Your task to perform on an android device: Search for usb-c on walmart, select the first entry, and add it to the cart. Image 0: 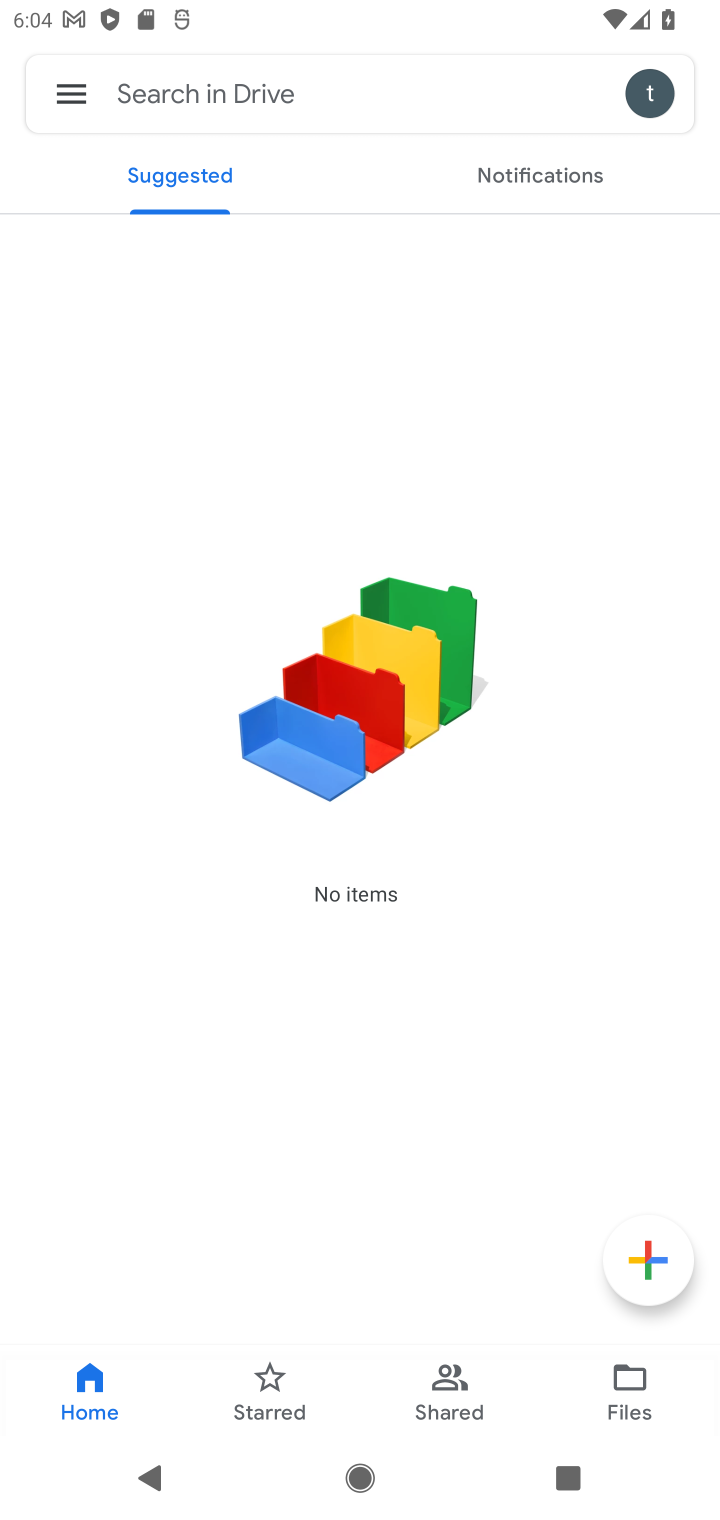
Step 0: press home button
Your task to perform on an android device: Search for usb-c on walmart, select the first entry, and add it to the cart. Image 1: 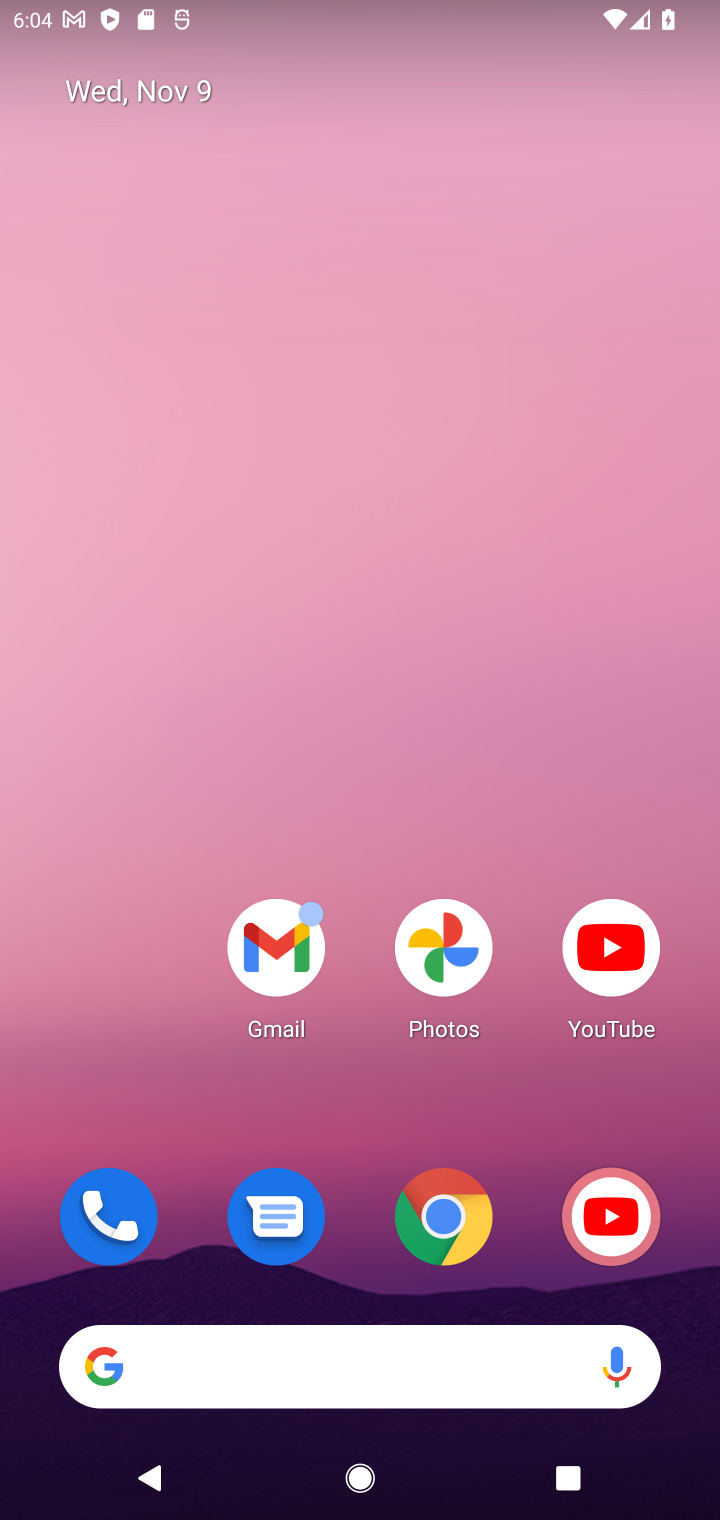
Step 1: drag from (401, 1099) to (464, 740)
Your task to perform on an android device: Search for usb-c on walmart, select the first entry, and add it to the cart. Image 2: 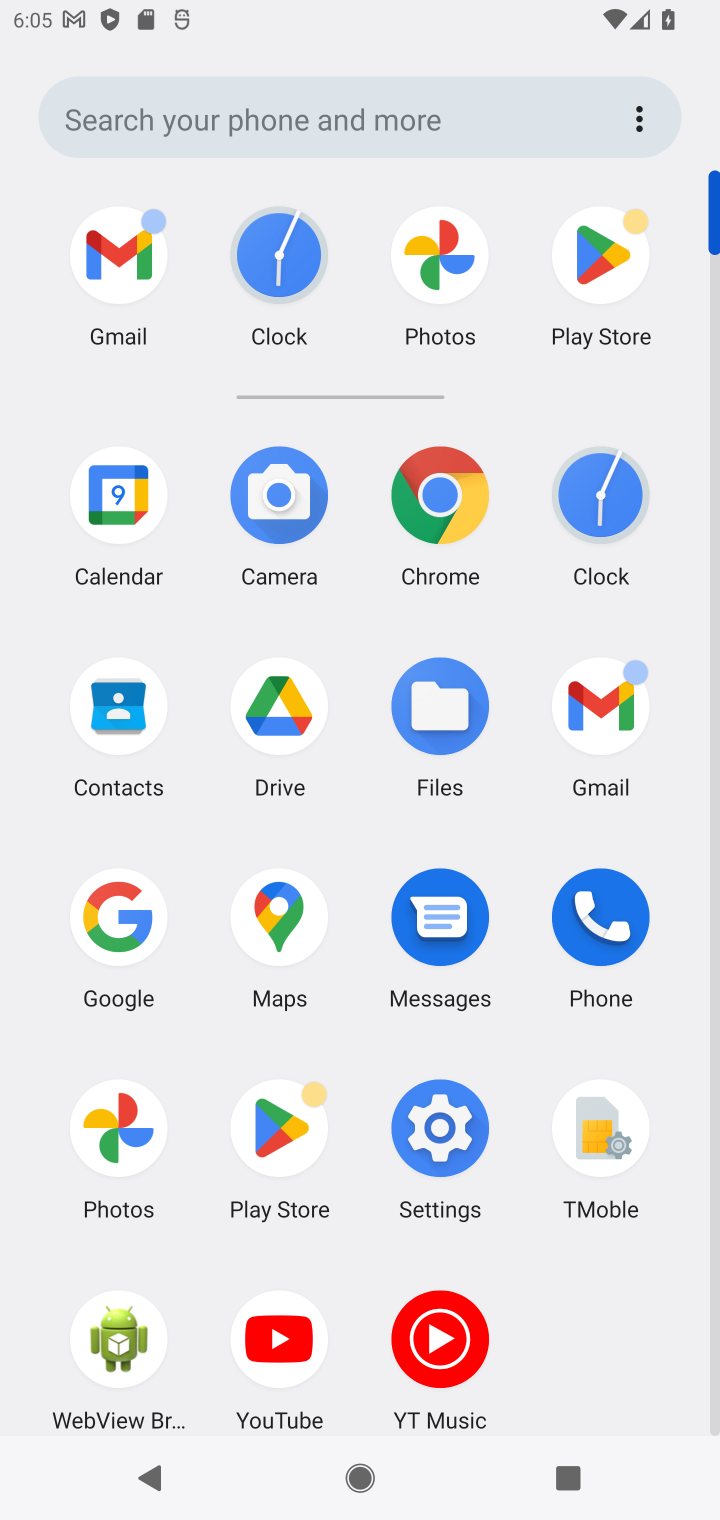
Step 2: click (444, 505)
Your task to perform on an android device: Search for usb-c on walmart, select the first entry, and add it to the cart. Image 3: 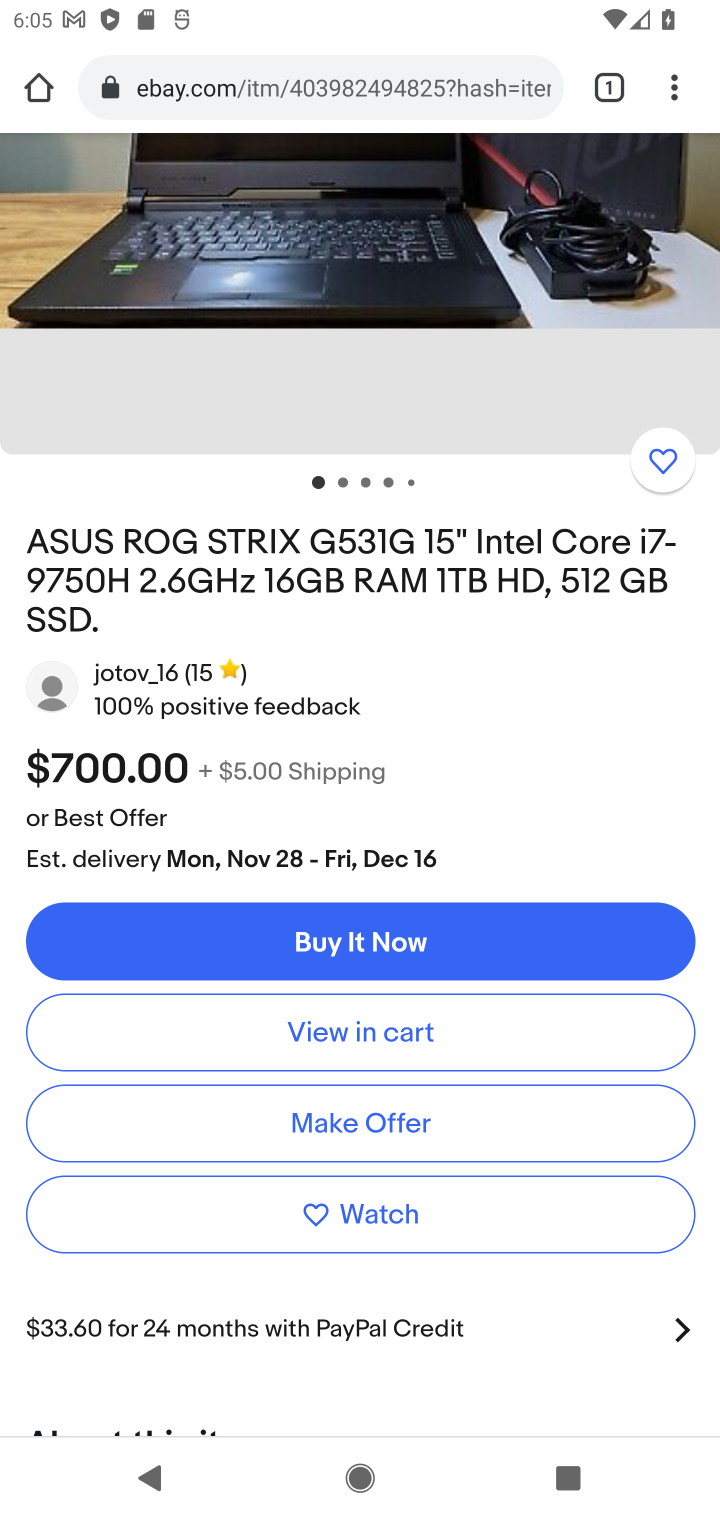
Step 3: click (383, 86)
Your task to perform on an android device: Search for usb-c on walmart, select the first entry, and add it to the cart. Image 4: 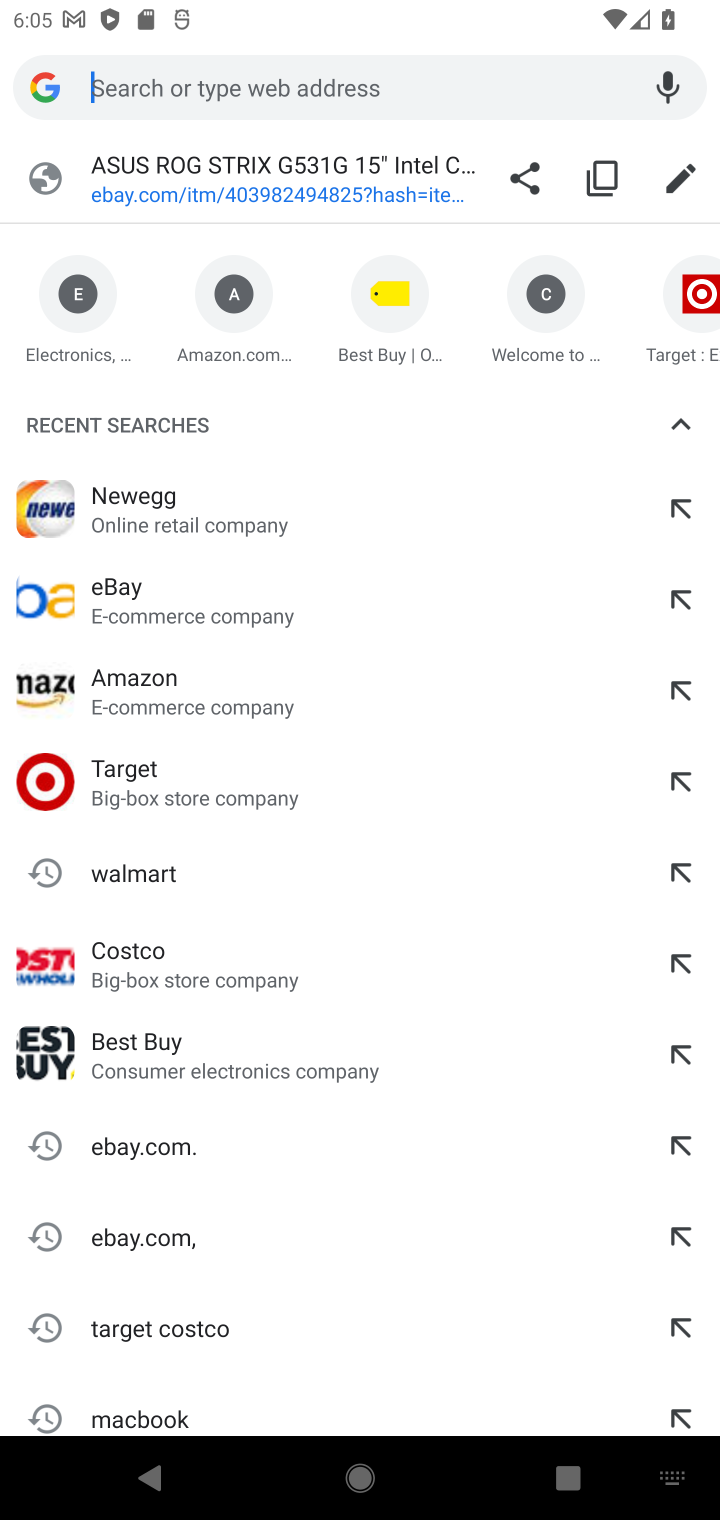
Step 4: type "walmart.com"
Your task to perform on an android device: Search for usb-c on walmart, select the first entry, and add it to the cart. Image 5: 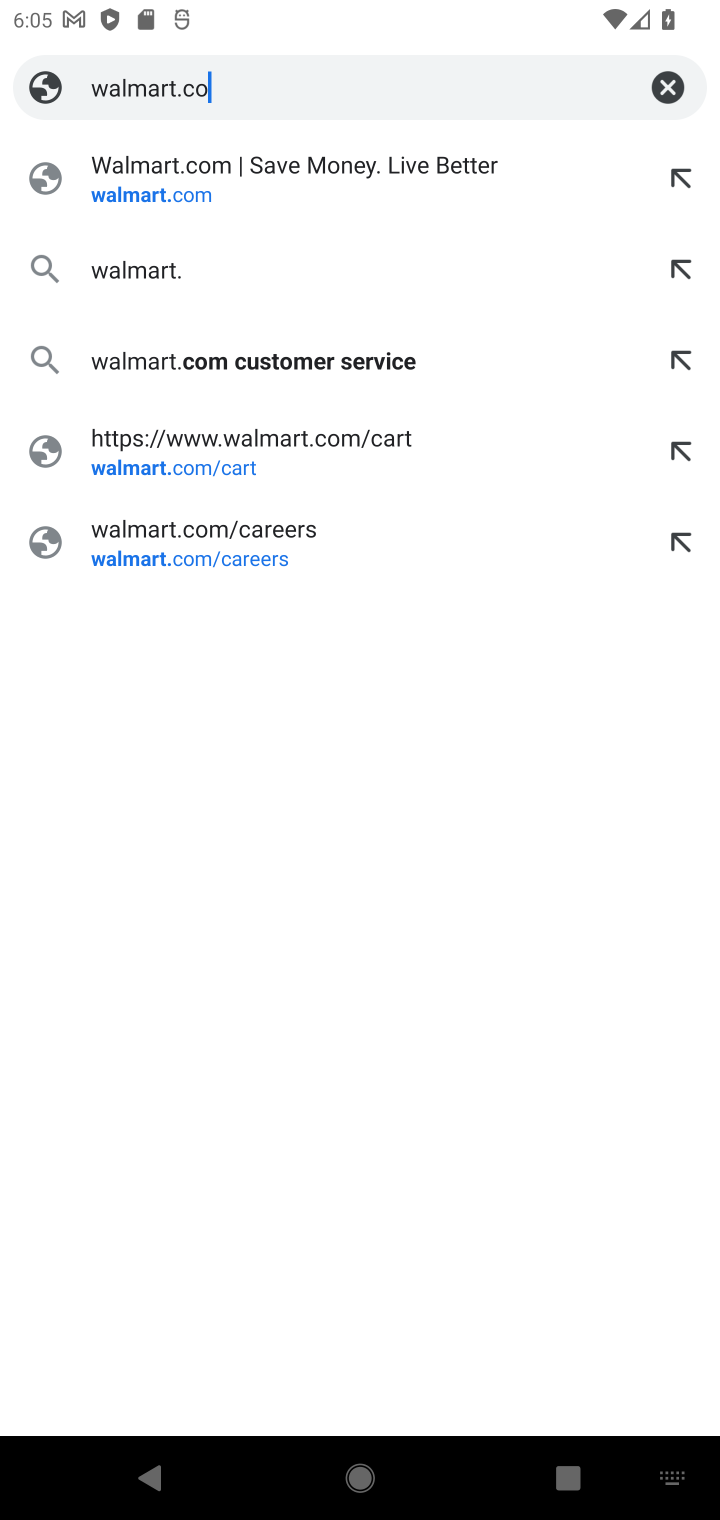
Step 5: press enter
Your task to perform on an android device: Search for usb-c on walmart, select the first entry, and add it to the cart. Image 6: 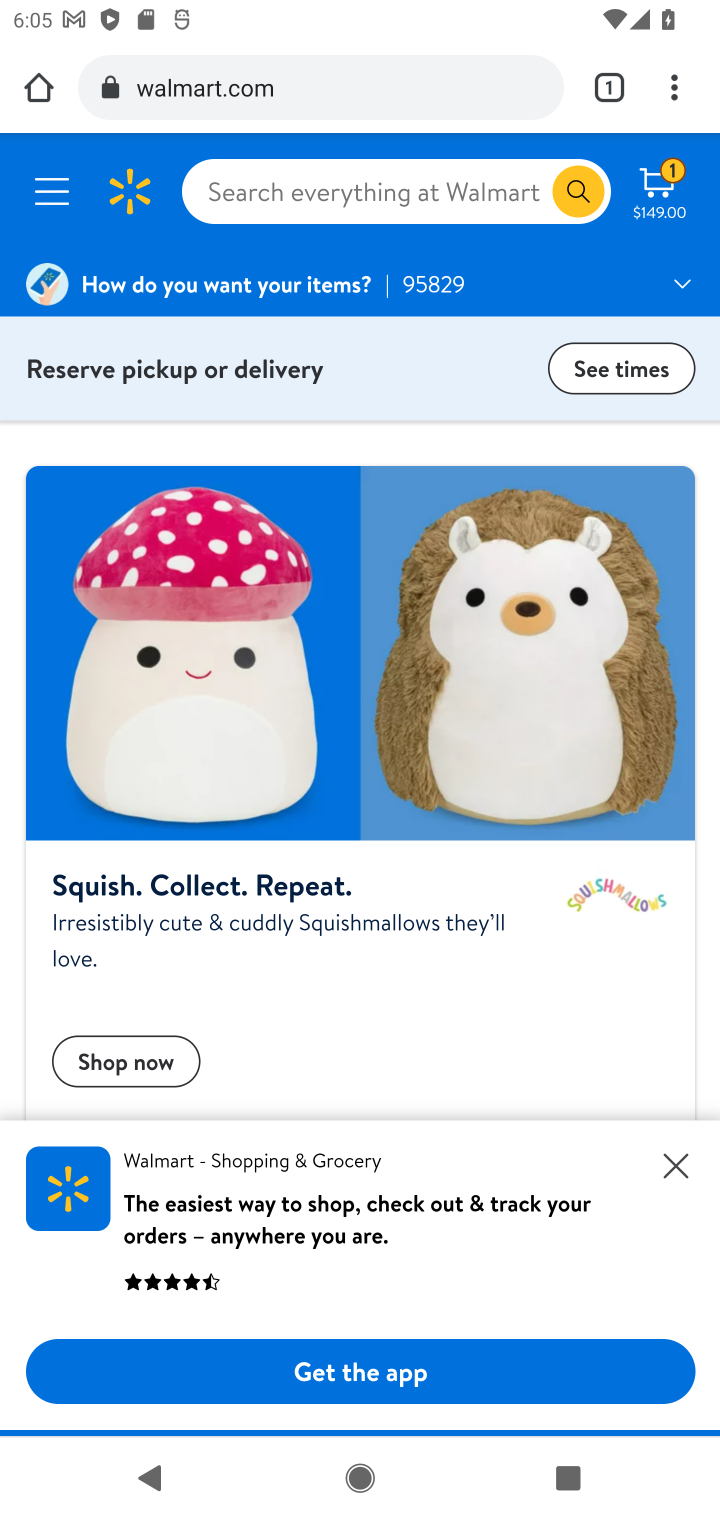
Step 6: click (480, 200)
Your task to perform on an android device: Search for usb-c on walmart, select the first entry, and add it to the cart. Image 7: 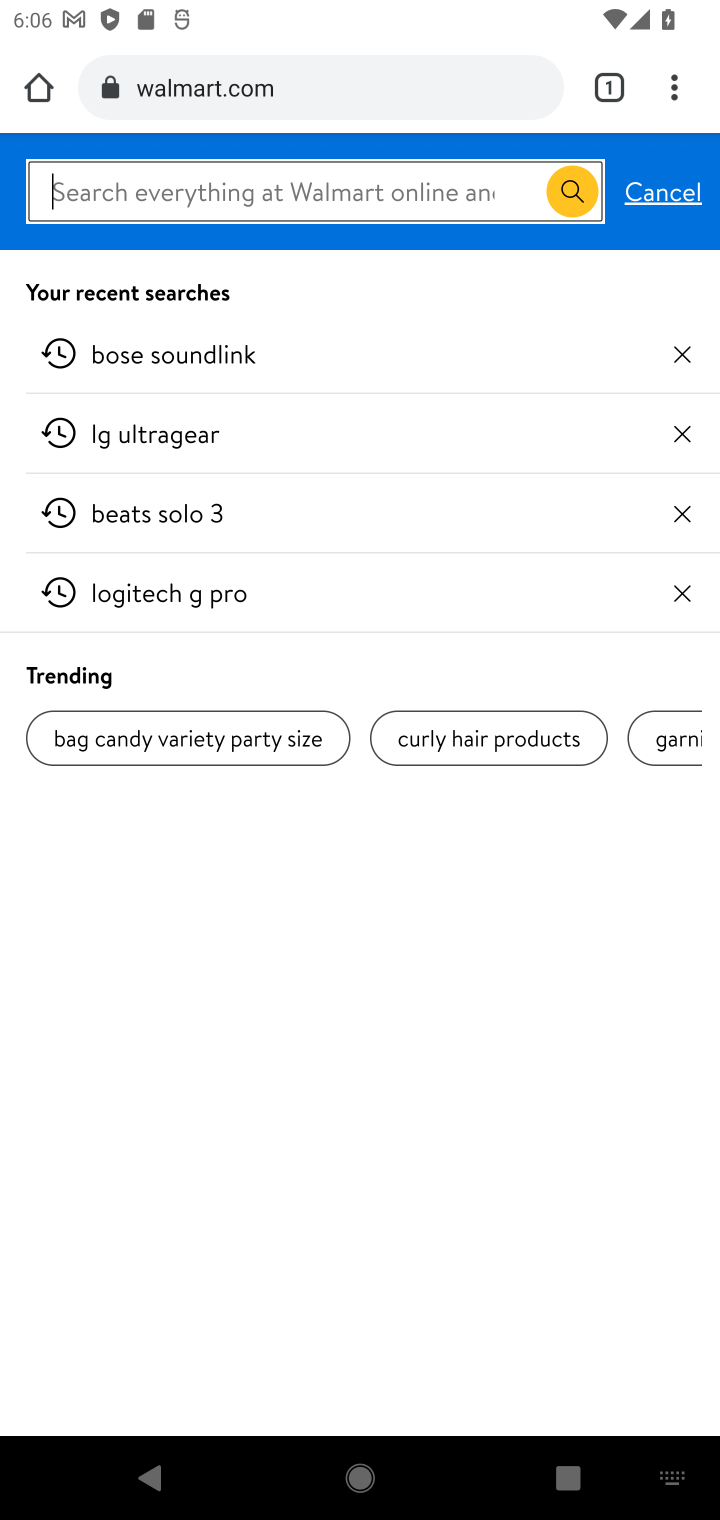
Step 7: type "usb-c"
Your task to perform on an android device: Search for usb-c on walmart, select the first entry, and add it to the cart. Image 8: 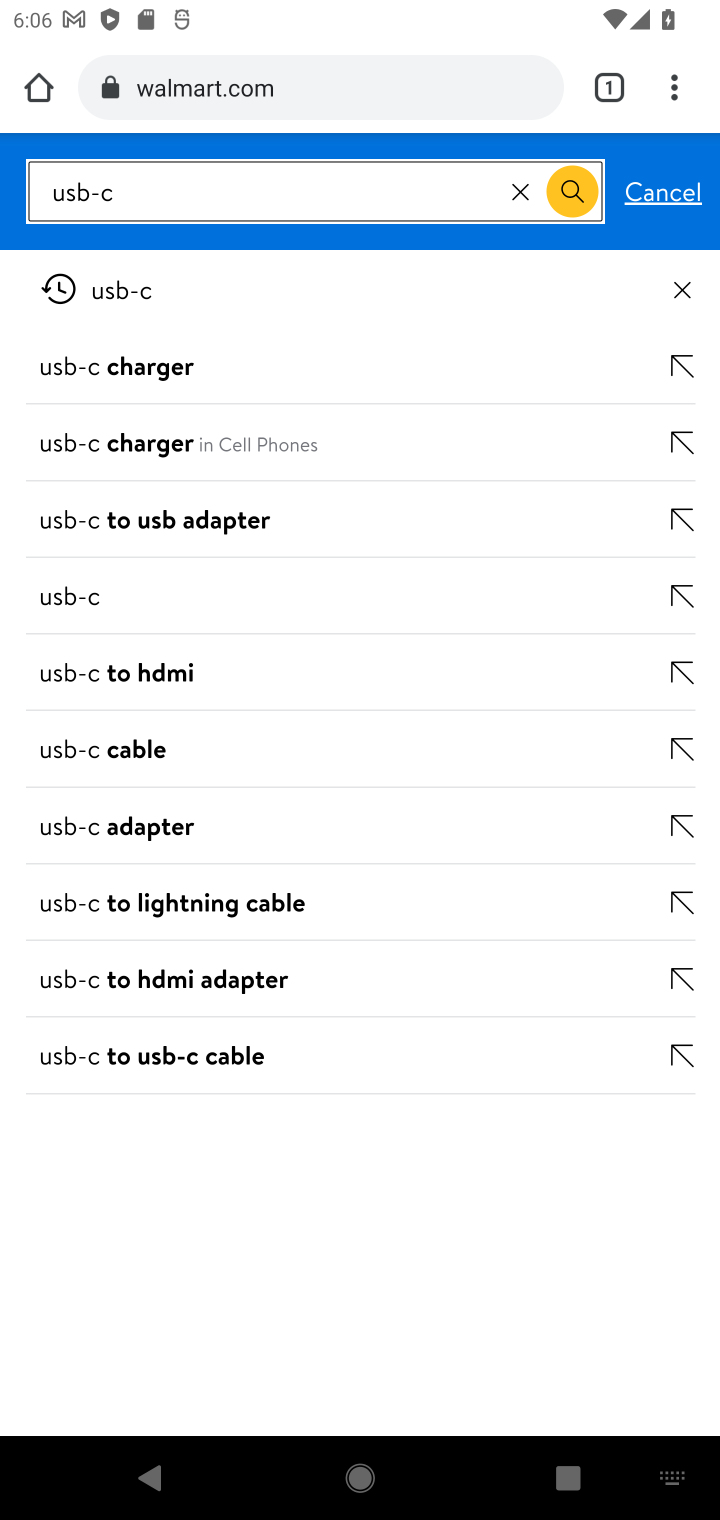
Step 8: press enter
Your task to perform on an android device: Search for usb-c on walmart, select the first entry, and add it to the cart. Image 9: 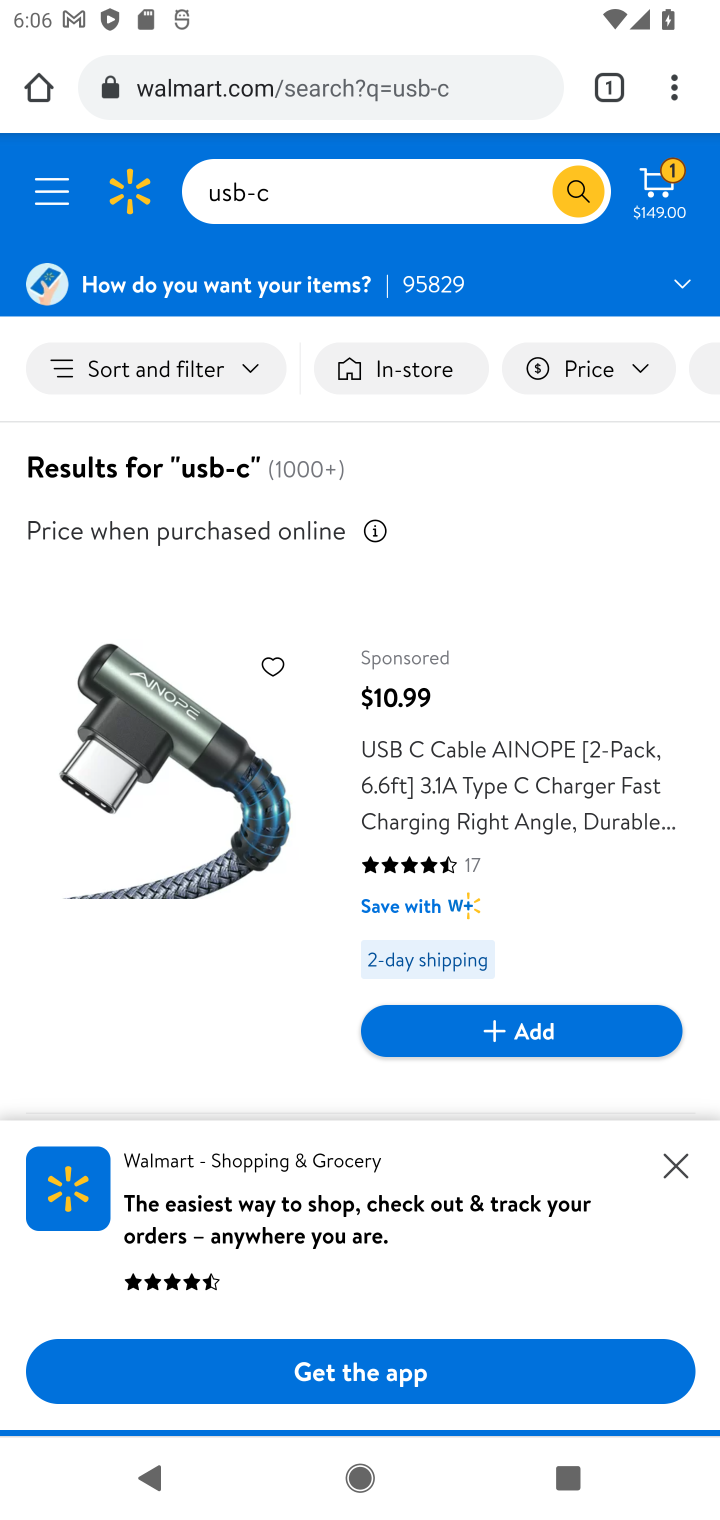
Step 9: drag from (281, 391) to (292, 218)
Your task to perform on an android device: Search for usb-c on walmart, select the first entry, and add it to the cart. Image 10: 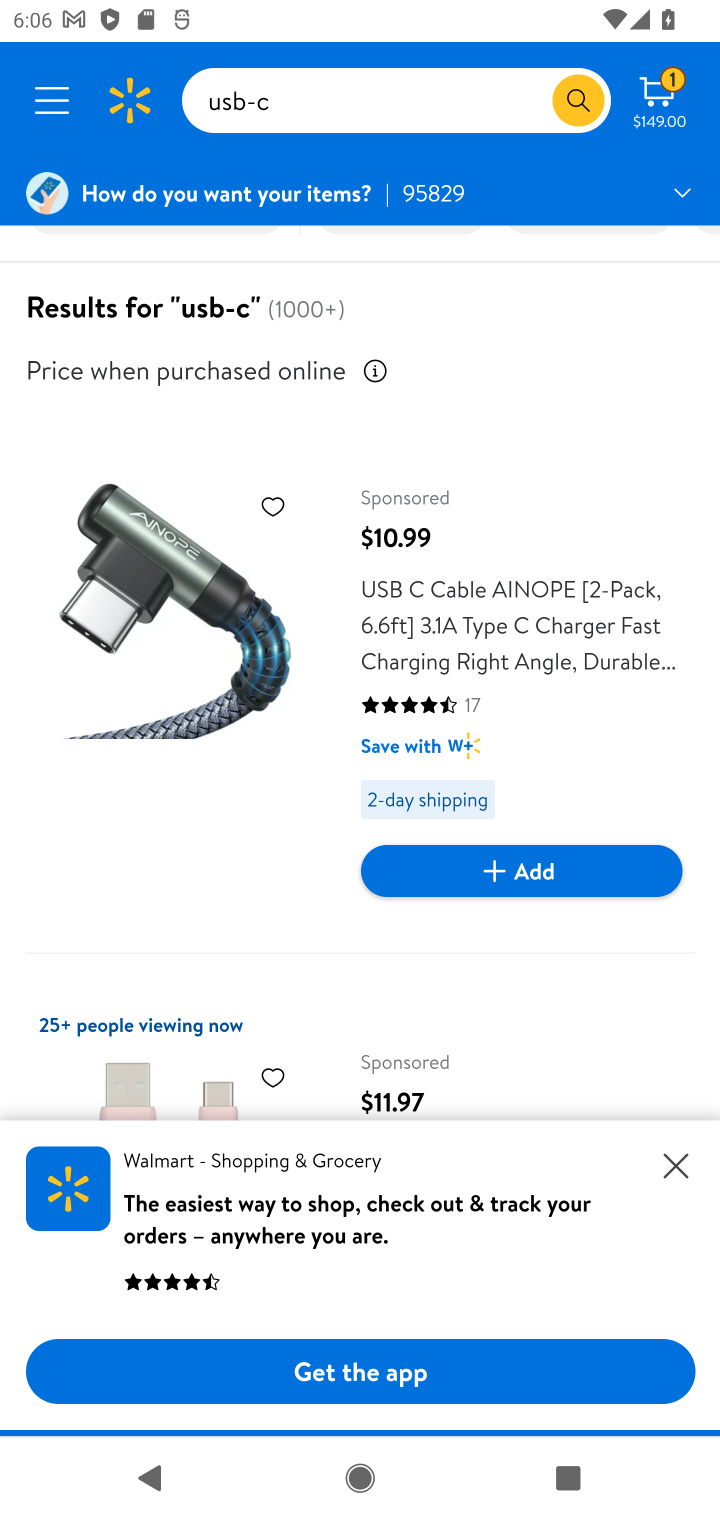
Step 10: drag from (313, 976) to (347, 303)
Your task to perform on an android device: Search for usb-c on walmart, select the first entry, and add it to the cart. Image 11: 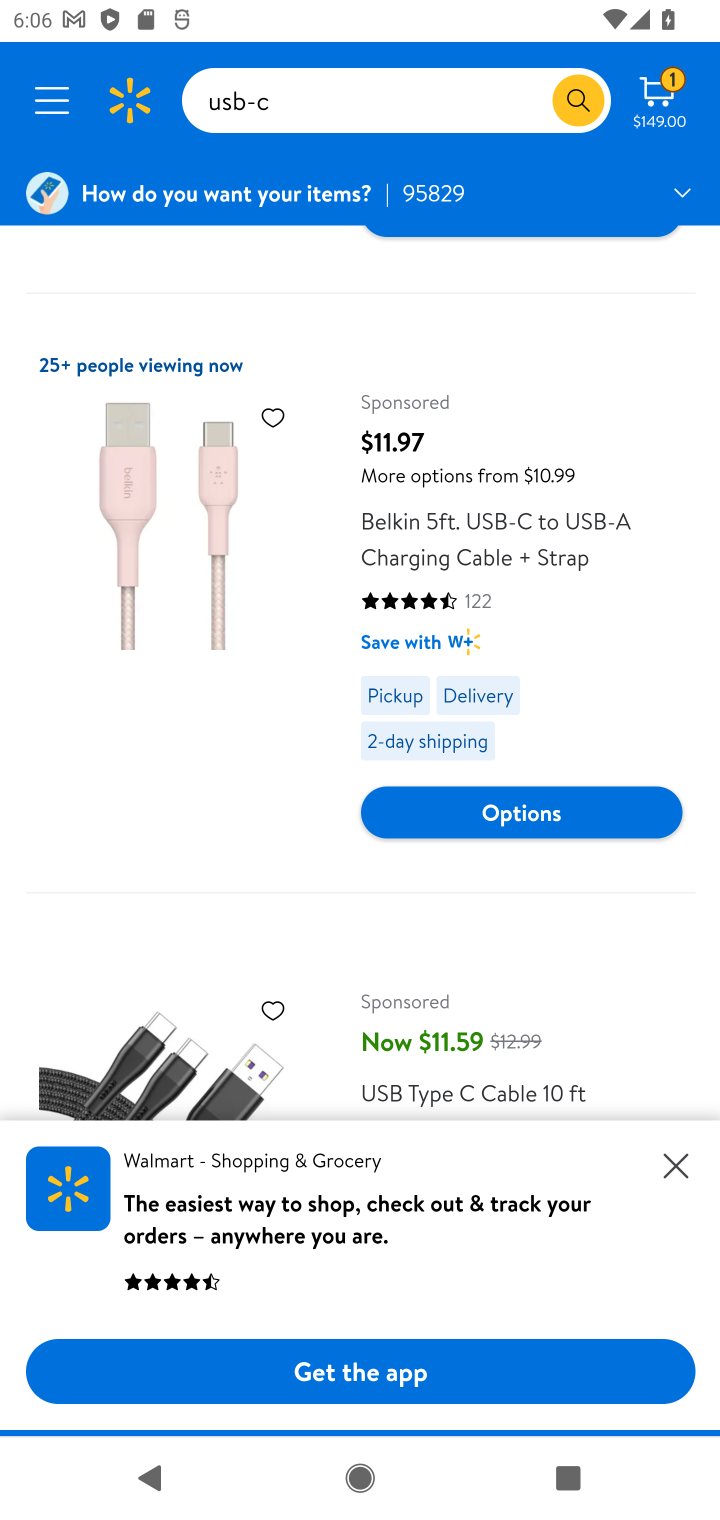
Step 11: drag from (372, 978) to (374, 256)
Your task to perform on an android device: Search for usb-c on walmart, select the first entry, and add it to the cart. Image 12: 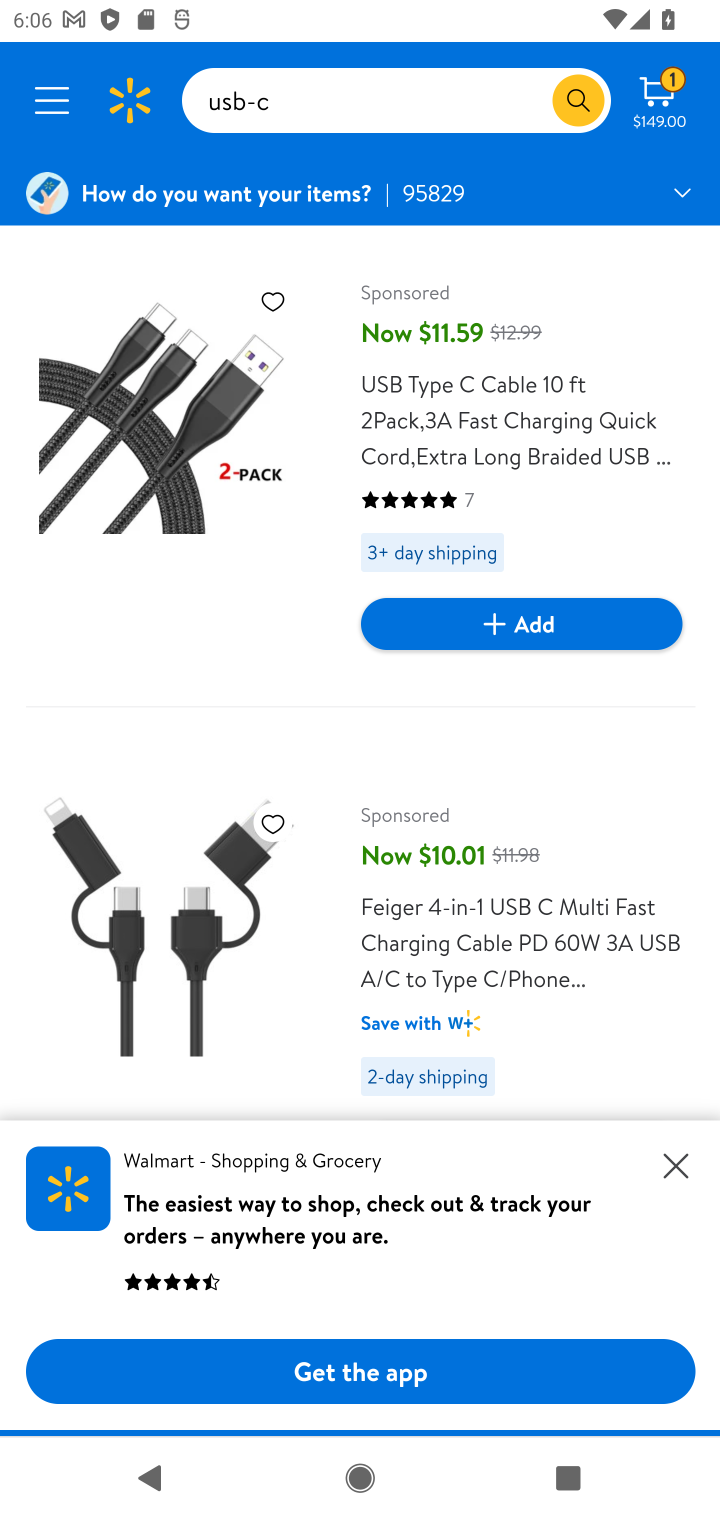
Step 12: drag from (298, 991) to (331, 354)
Your task to perform on an android device: Search for usb-c on walmart, select the first entry, and add it to the cart. Image 13: 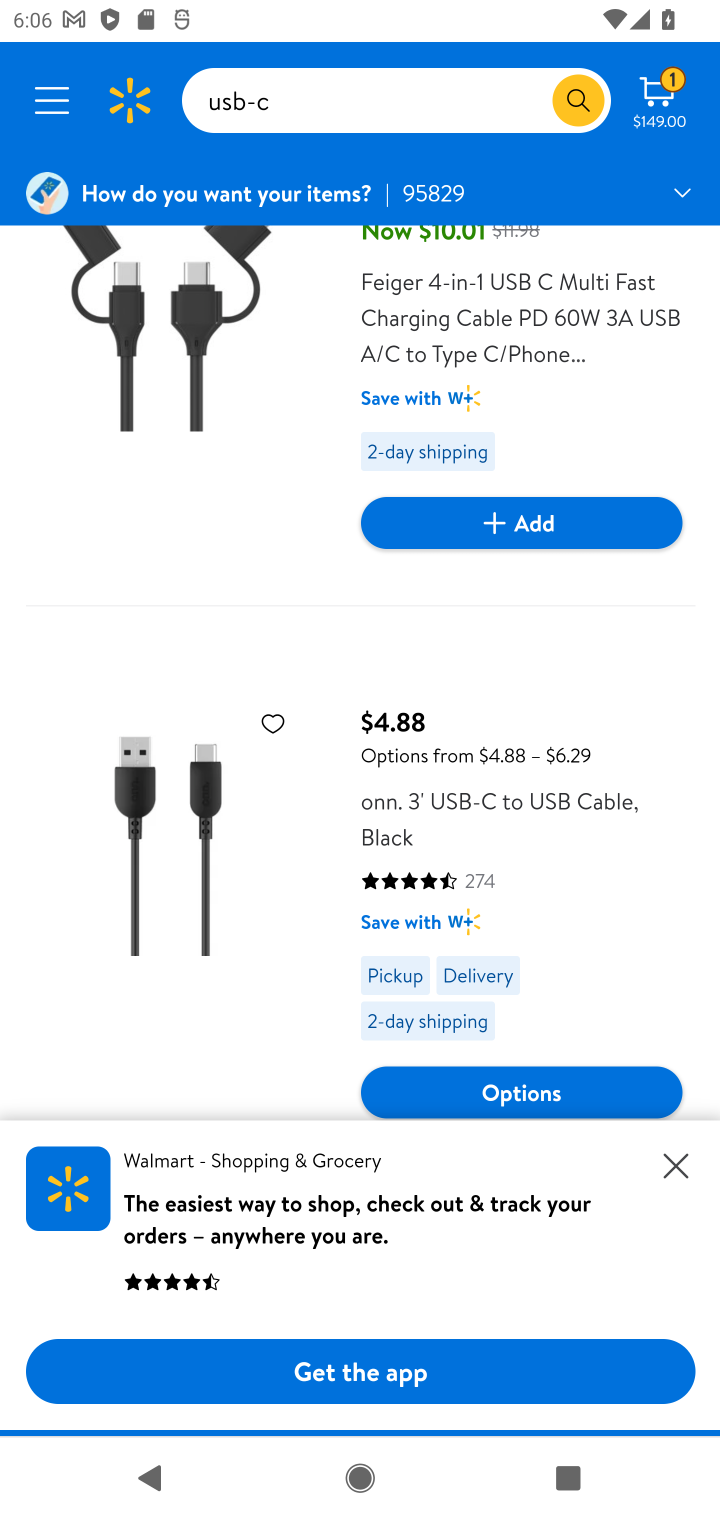
Step 13: drag from (229, 467) to (274, 603)
Your task to perform on an android device: Search for usb-c on walmart, select the first entry, and add it to the cart. Image 14: 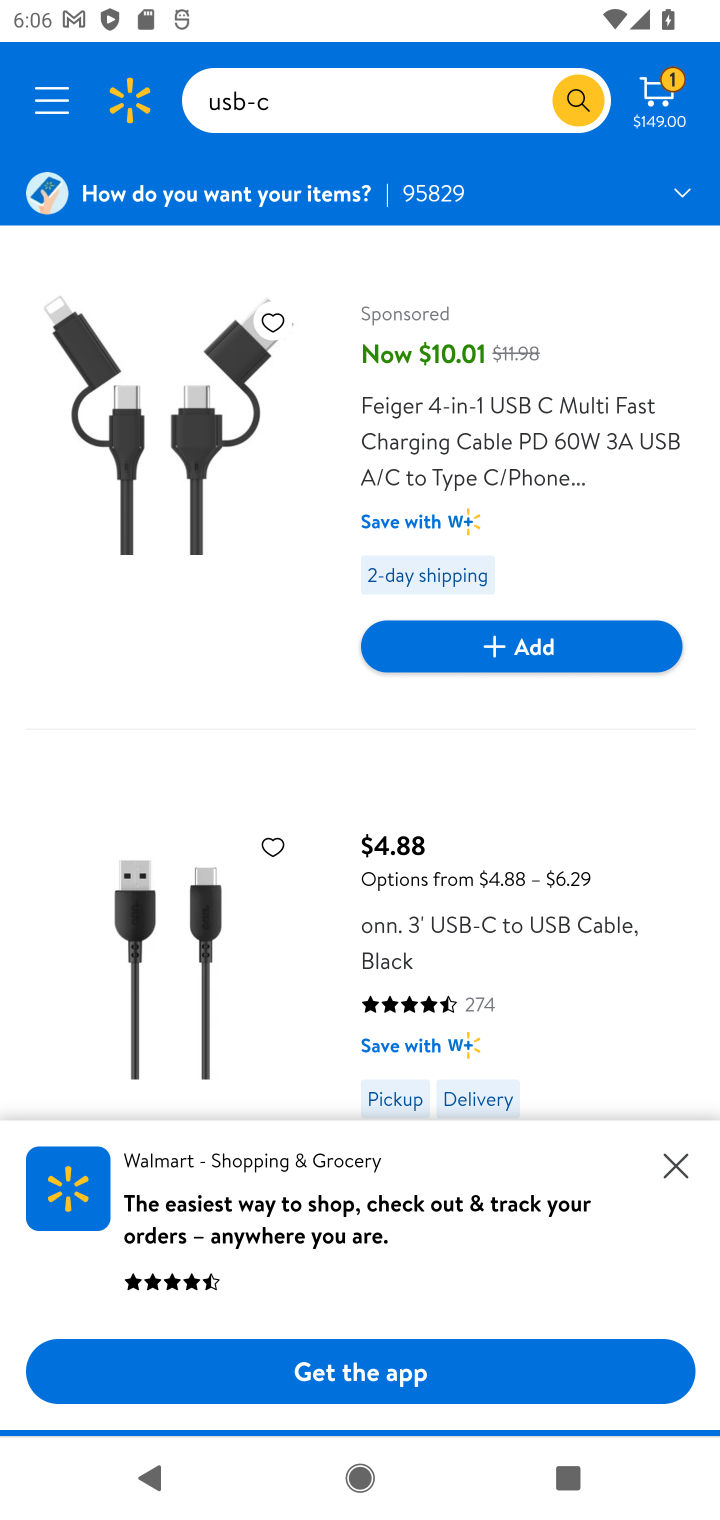
Step 14: drag from (430, 977) to (434, 887)
Your task to perform on an android device: Search for usb-c on walmart, select the first entry, and add it to the cart. Image 15: 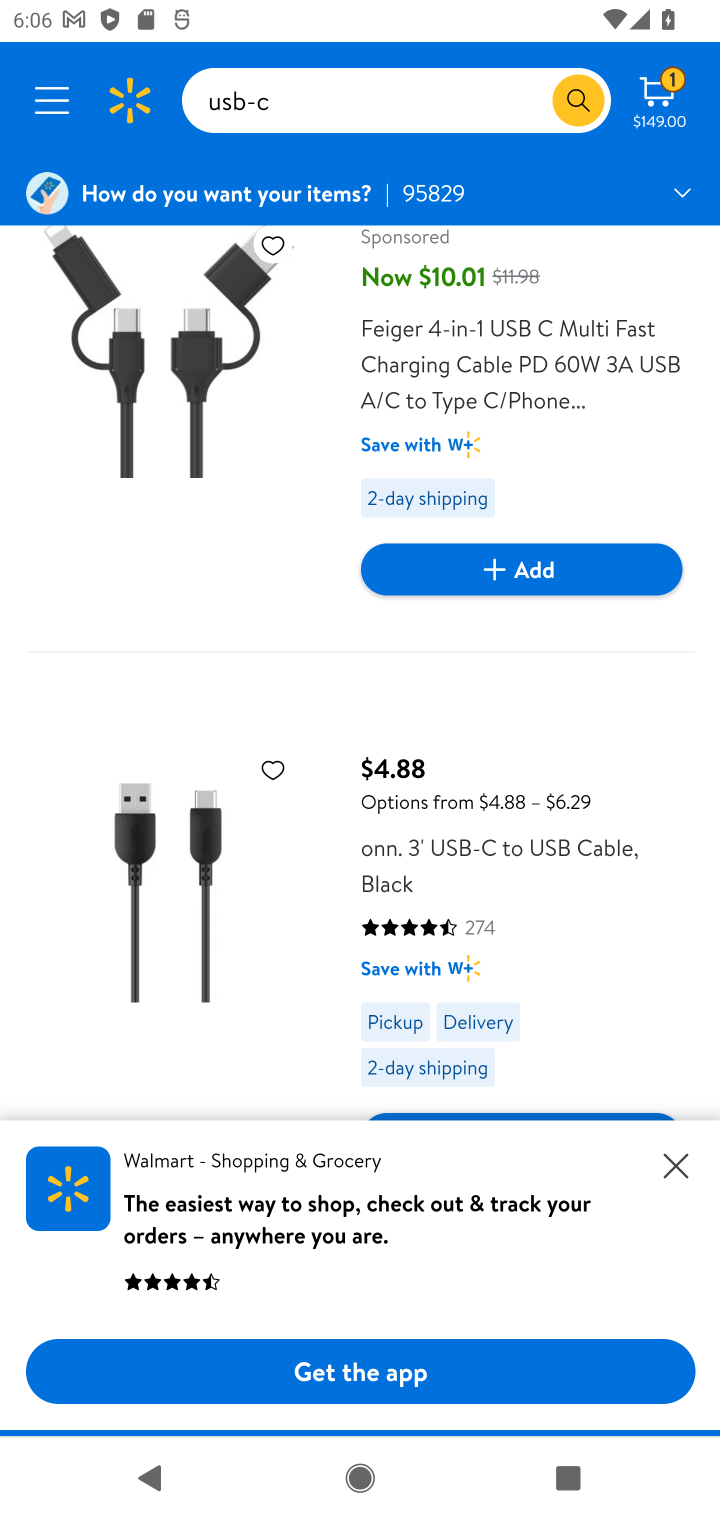
Step 15: drag from (648, 1091) to (567, 756)
Your task to perform on an android device: Search for usb-c on walmart, select the first entry, and add it to the cart. Image 16: 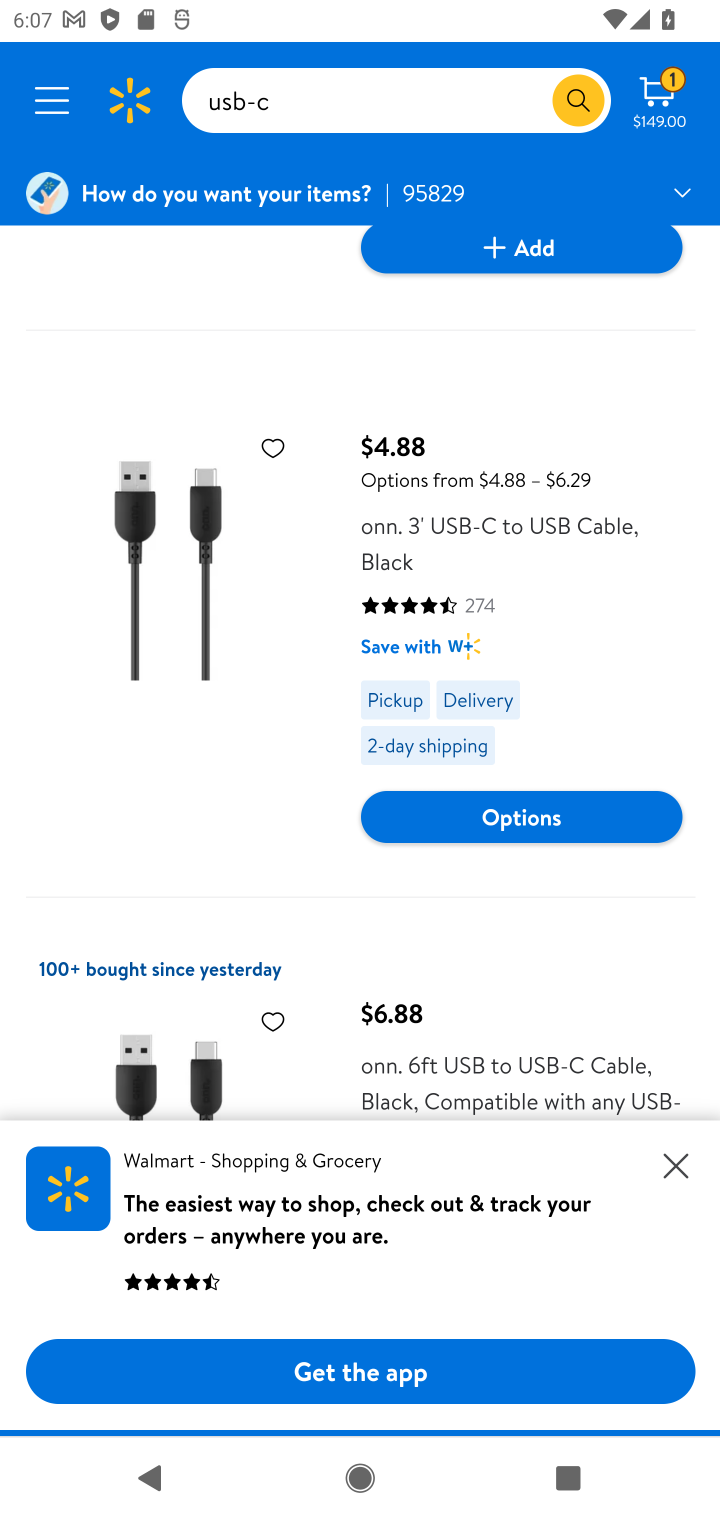
Step 16: click (512, 818)
Your task to perform on an android device: Search for usb-c on walmart, select the first entry, and add it to the cart. Image 17: 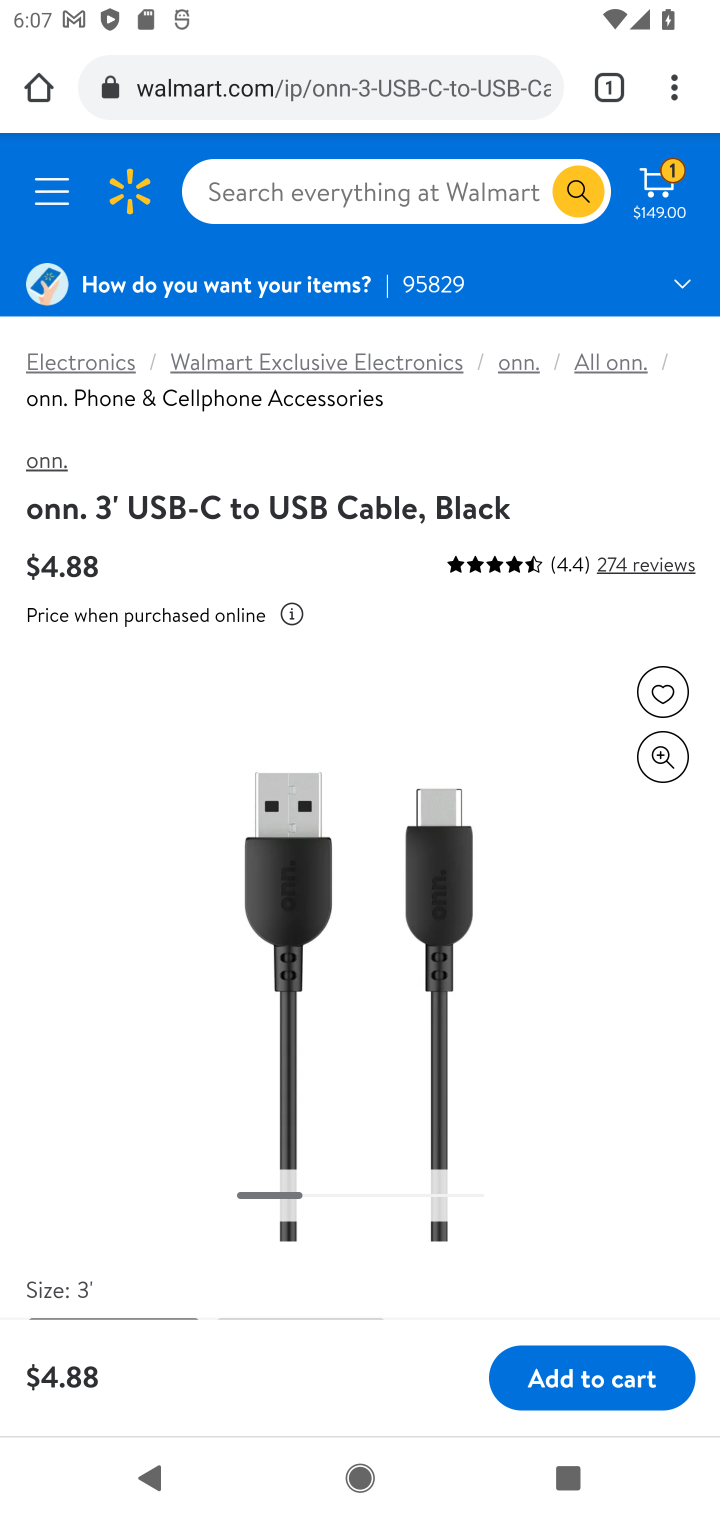
Step 17: click (590, 1368)
Your task to perform on an android device: Search for usb-c on walmart, select the first entry, and add it to the cart. Image 18: 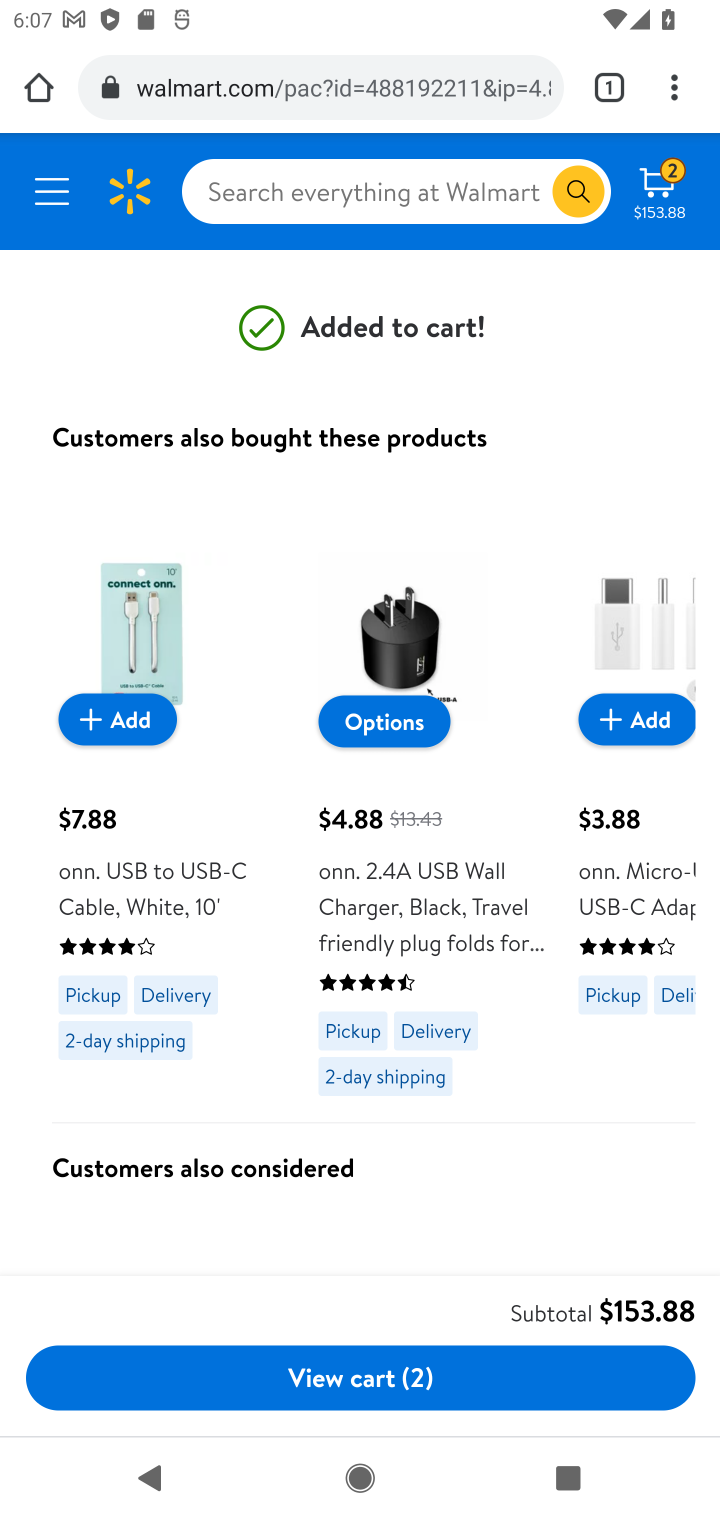
Step 18: task complete